Your task to perform on an android device: toggle wifi Image 0: 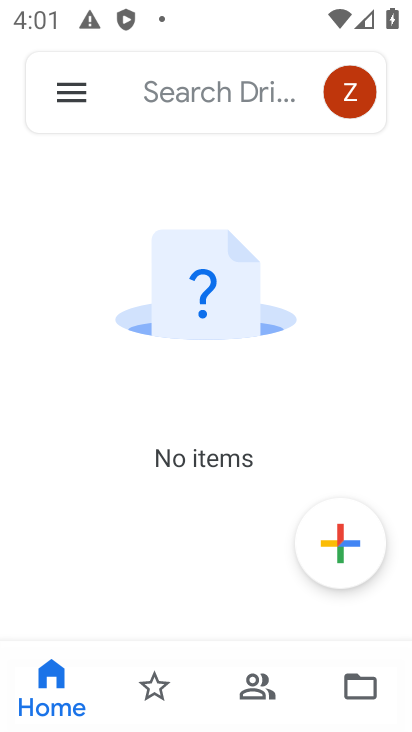
Step 0: press home button
Your task to perform on an android device: toggle wifi Image 1: 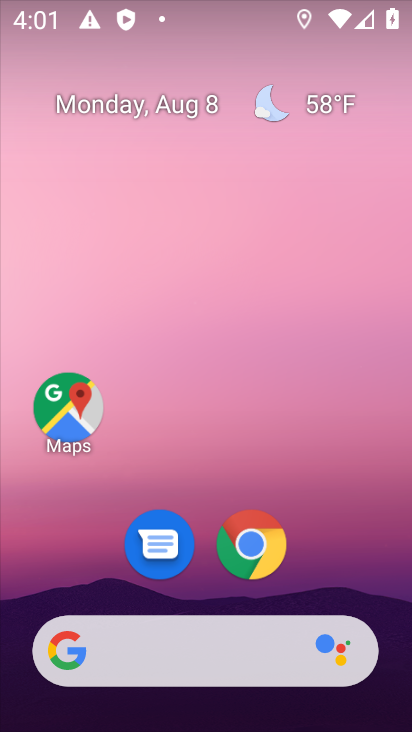
Step 1: drag from (235, 626) to (244, 57)
Your task to perform on an android device: toggle wifi Image 2: 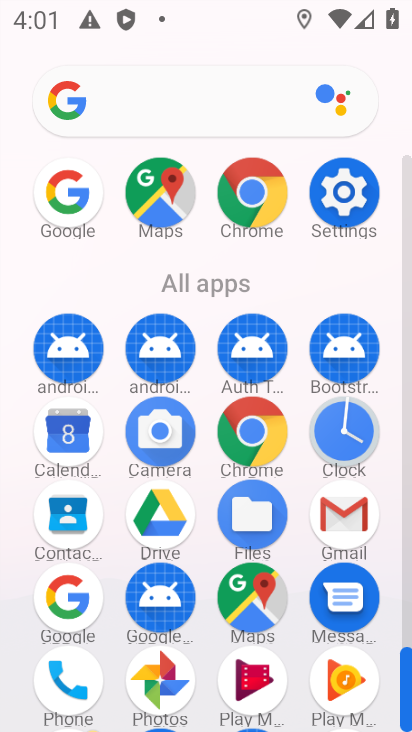
Step 2: click (342, 216)
Your task to perform on an android device: toggle wifi Image 3: 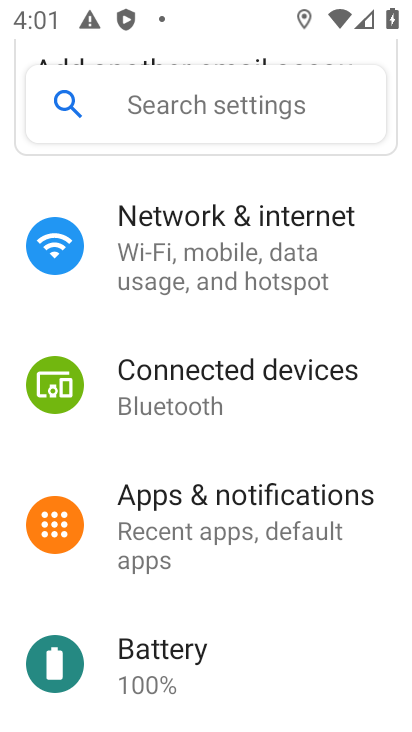
Step 3: click (305, 282)
Your task to perform on an android device: toggle wifi Image 4: 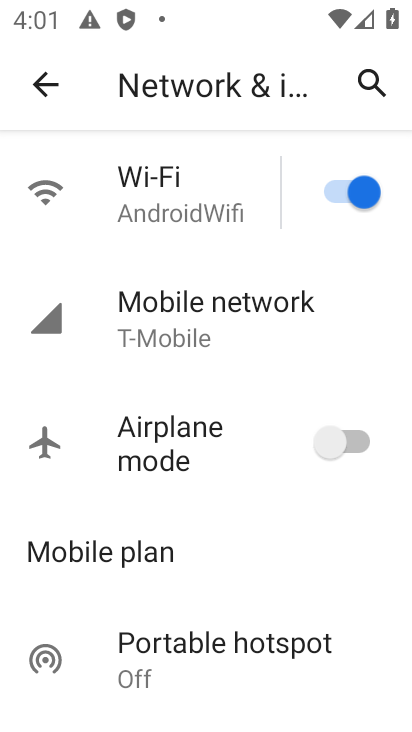
Step 4: click (353, 191)
Your task to perform on an android device: toggle wifi Image 5: 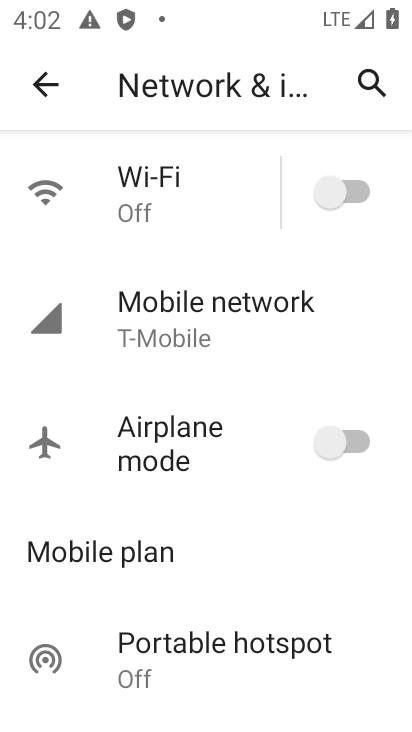
Step 5: task complete